Your task to perform on an android device: toggle airplane mode Image 0: 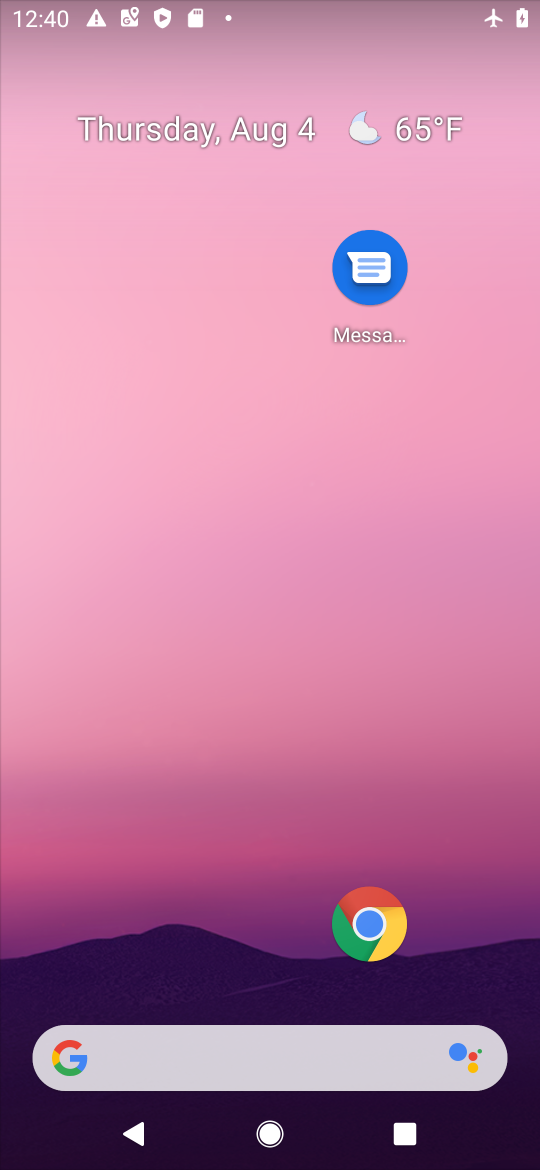
Step 0: drag from (17, 1126) to (280, 412)
Your task to perform on an android device: toggle airplane mode Image 1: 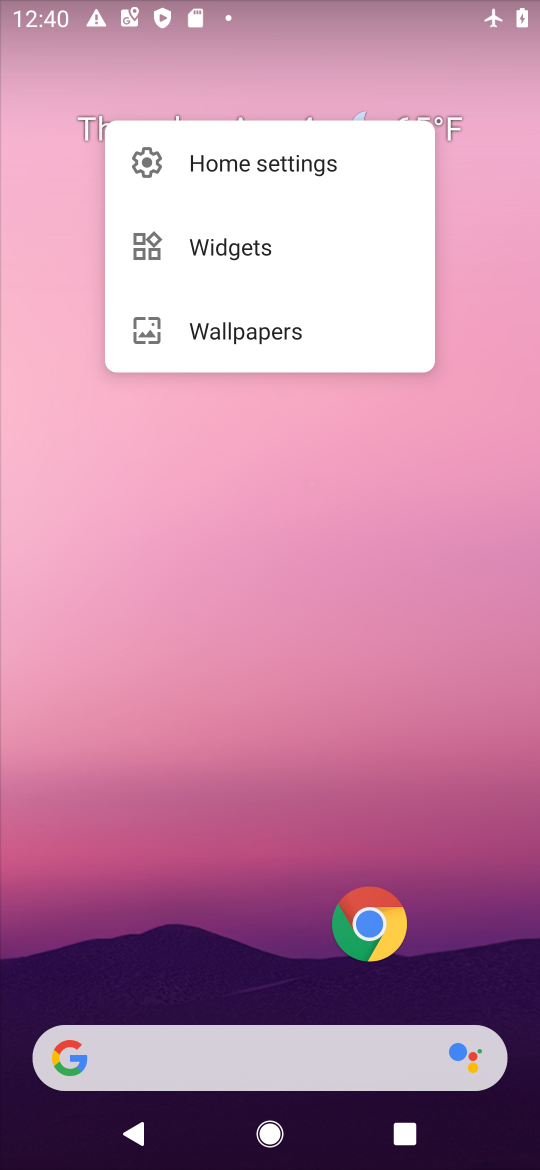
Step 1: drag from (82, 1061) to (280, 189)
Your task to perform on an android device: toggle airplane mode Image 2: 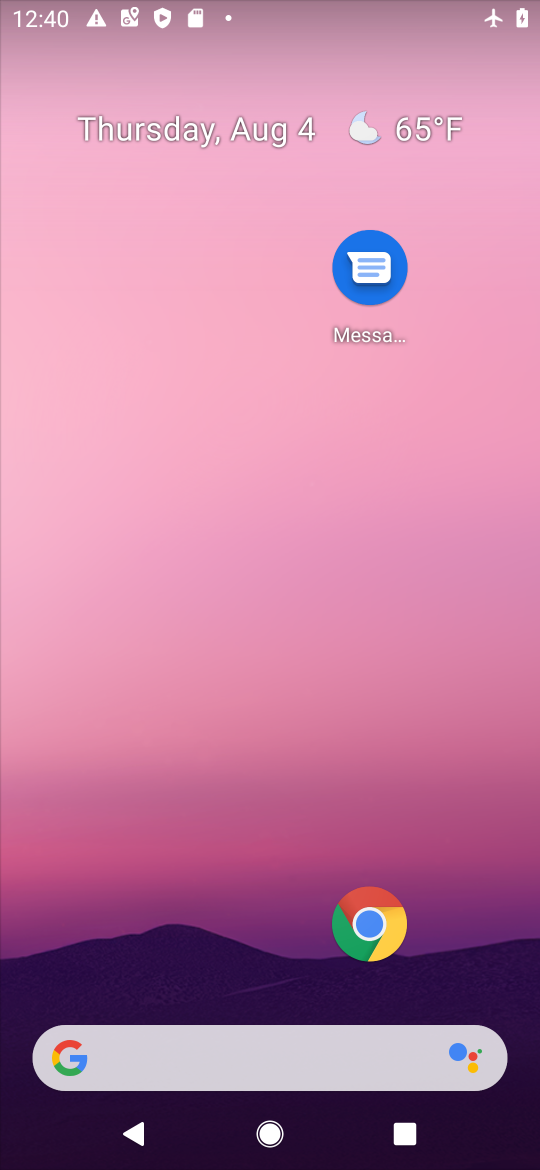
Step 2: drag from (163, 413) to (293, 82)
Your task to perform on an android device: toggle airplane mode Image 3: 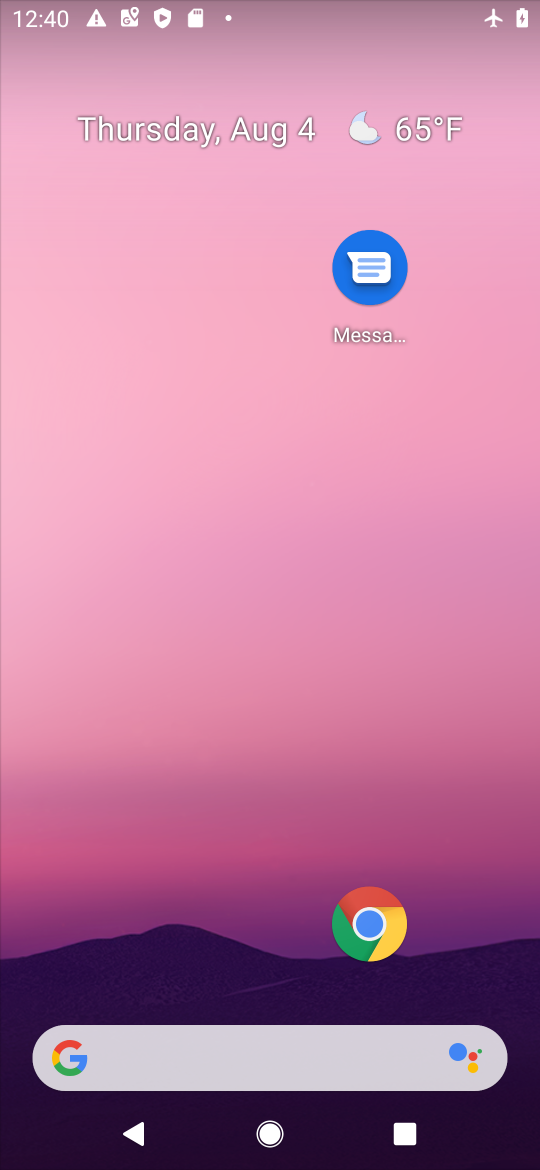
Step 3: drag from (38, 1135) to (420, 58)
Your task to perform on an android device: toggle airplane mode Image 4: 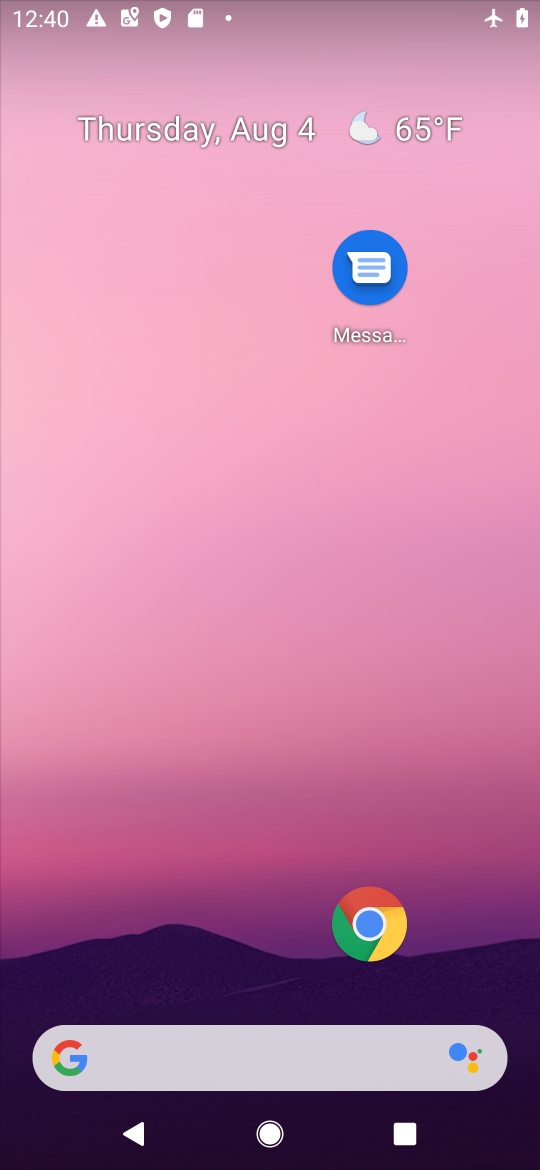
Step 4: drag from (72, 1111) to (427, 27)
Your task to perform on an android device: toggle airplane mode Image 5: 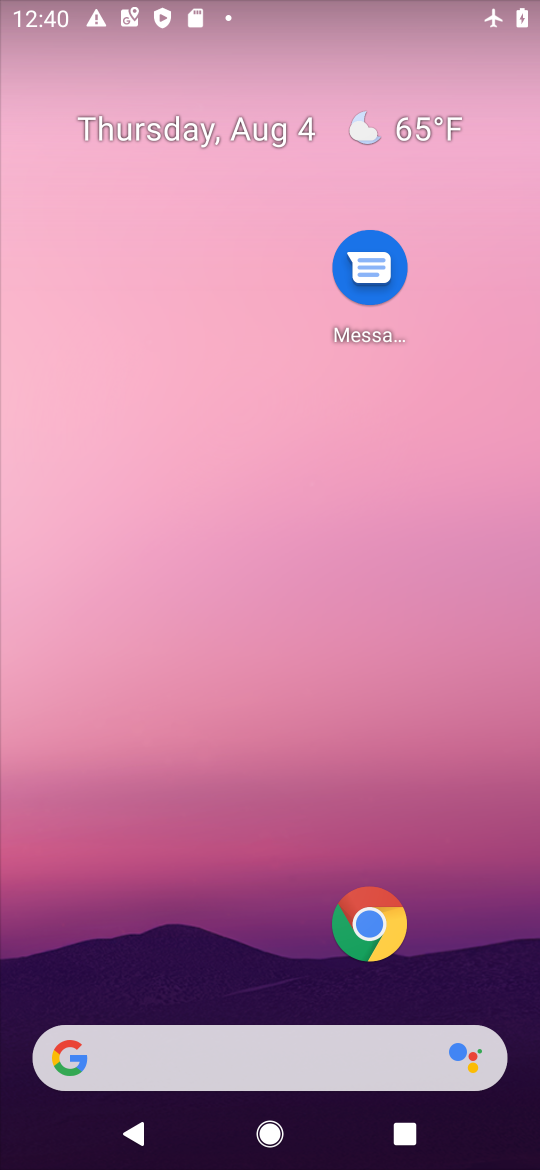
Step 5: drag from (18, 1114) to (375, 35)
Your task to perform on an android device: toggle airplane mode Image 6: 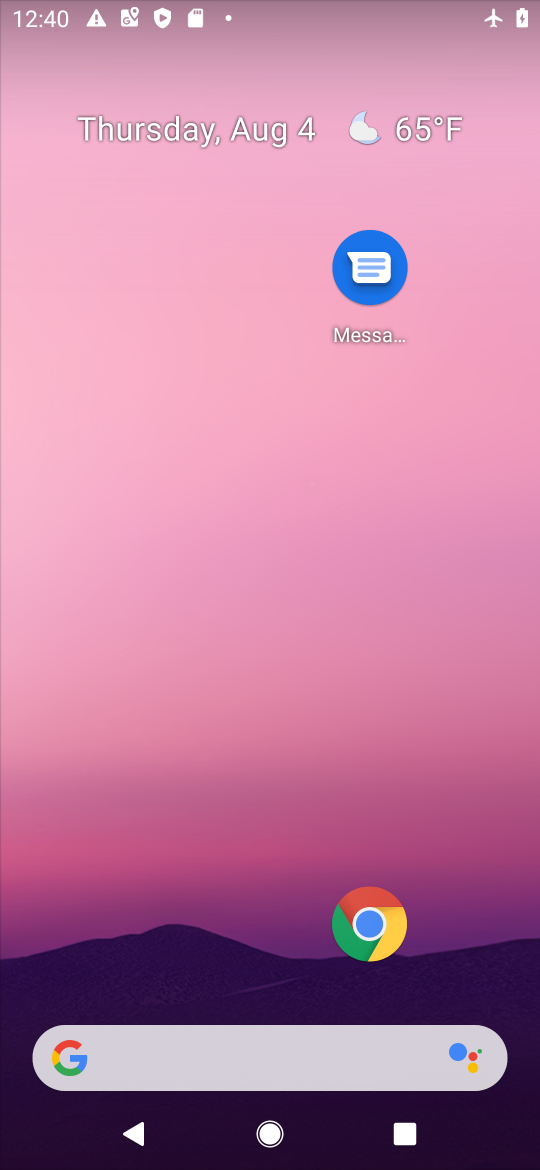
Step 6: drag from (29, 1095) to (270, 75)
Your task to perform on an android device: toggle airplane mode Image 7: 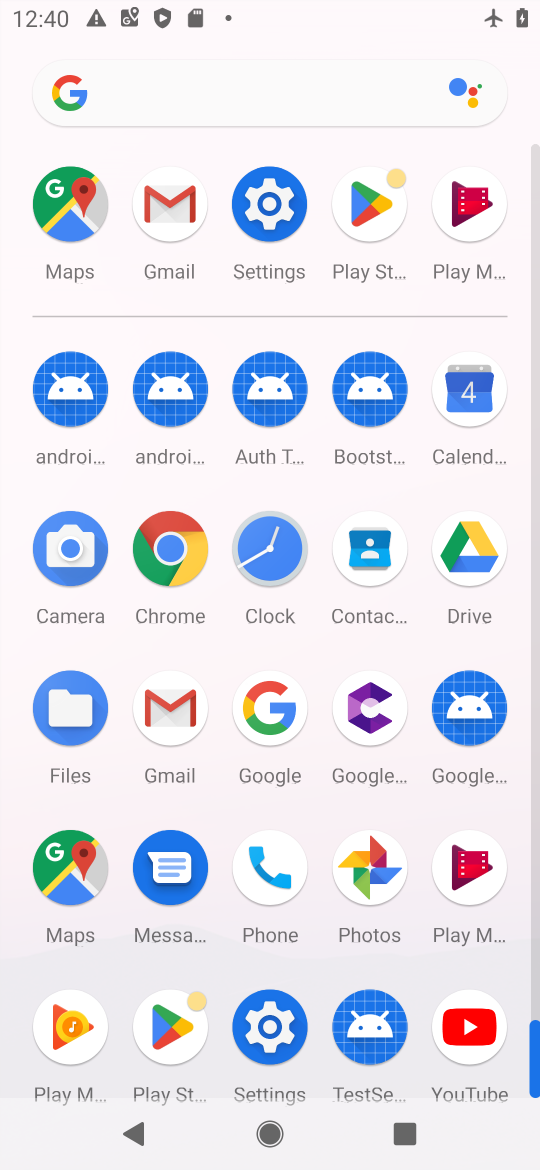
Step 7: click (270, 1012)
Your task to perform on an android device: toggle airplane mode Image 8: 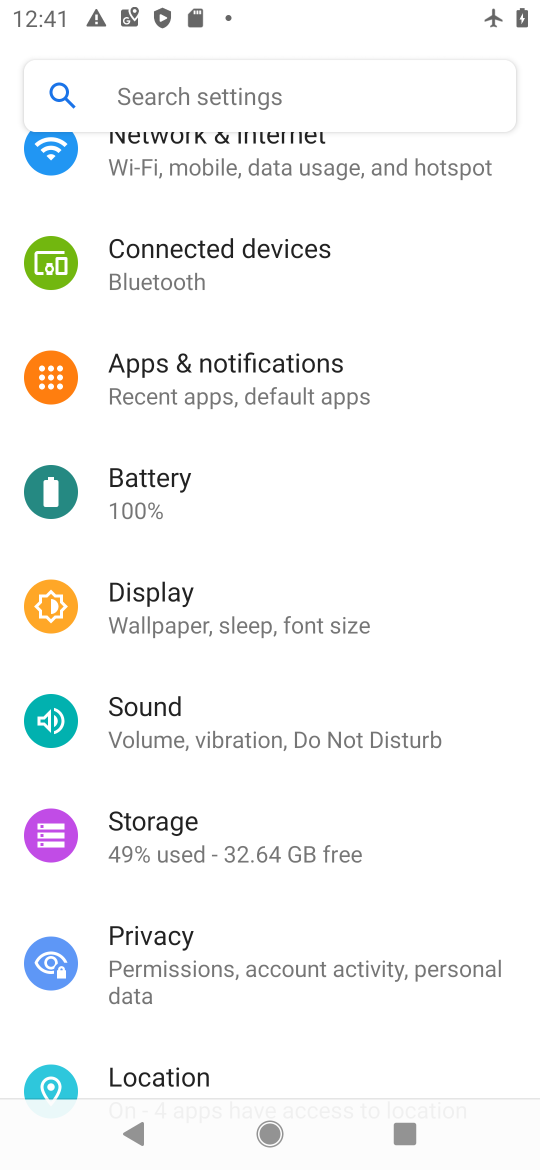
Step 8: drag from (393, 726) to (343, 1161)
Your task to perform on an android device: toggle airplane mode Image 9: 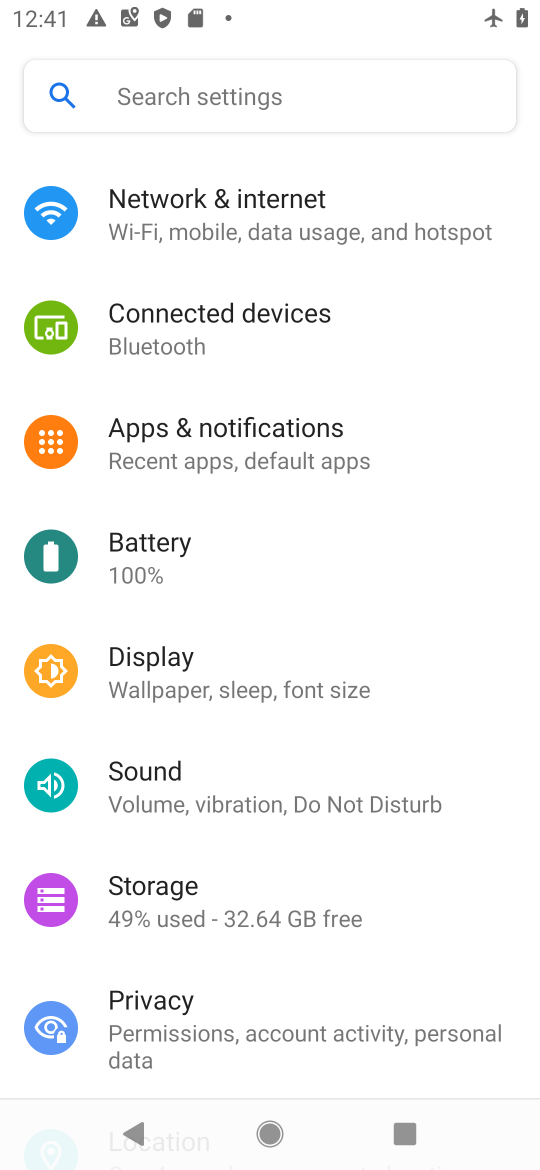
Step 9: drag from (347, 217) to (335, 663)
Your task to perform on an android device: toggle airplane mode Image 10: 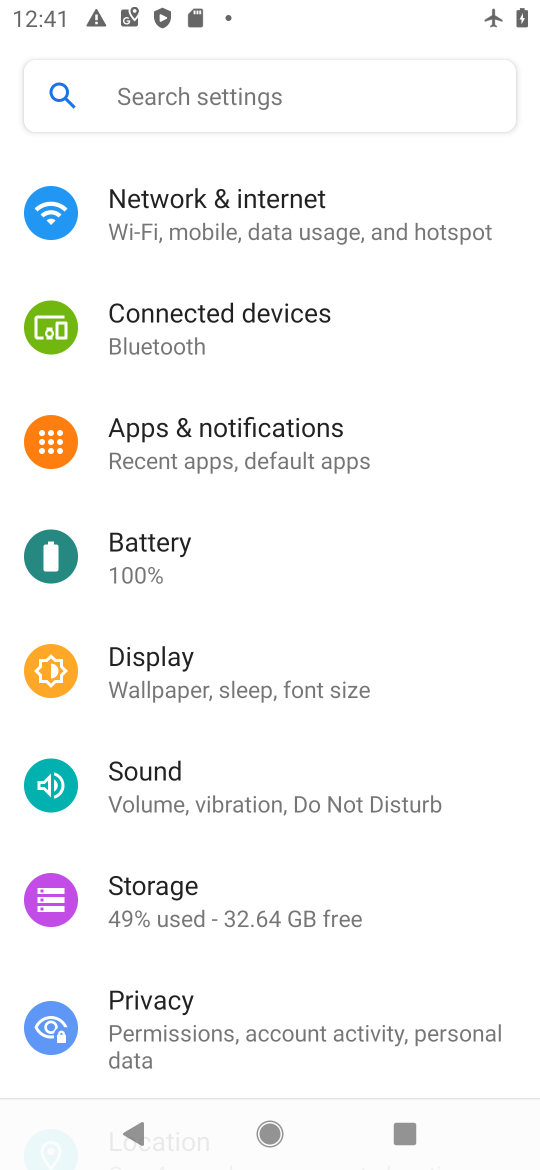
Step 10: click (219, 223)
Your task to perform on an android device: toggle airplane mode Image 11: 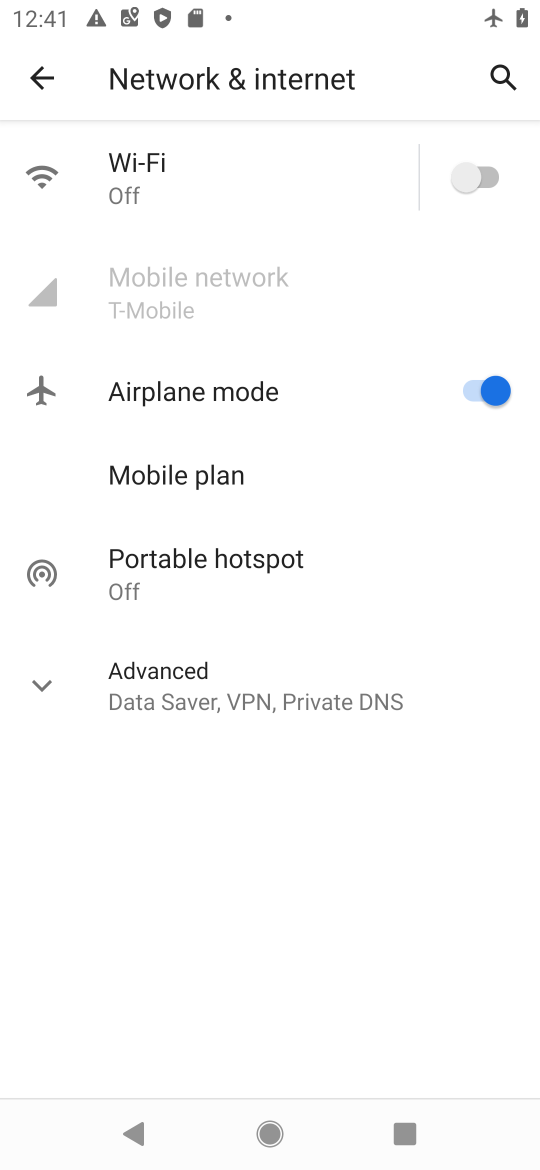
Step 11: click (485, 394)
Your task to perform on an android device: toggle airplane mode Image 12: 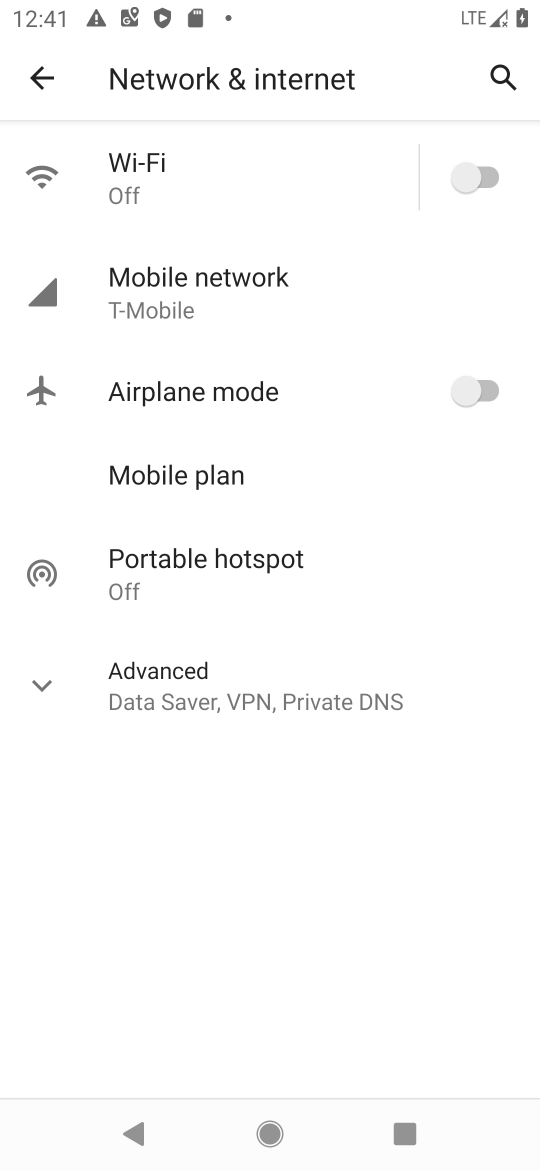
Step 12: task complete